Your task to perform on an android device: find which apps use the phone's location Image 0: 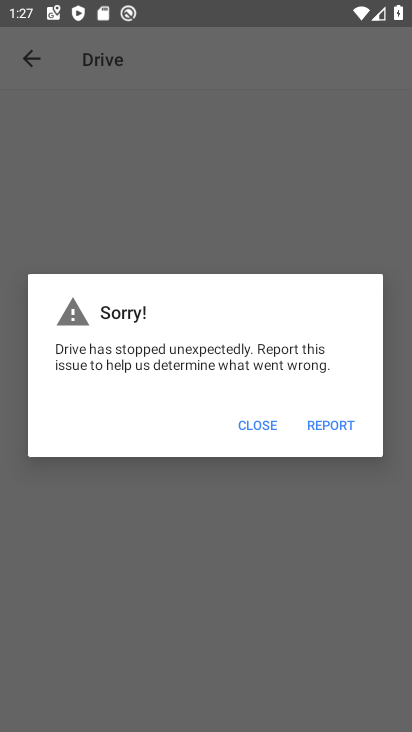
Step 0: press home button
Your task to perform on an android device: find which apps use the phone's location Image 1: 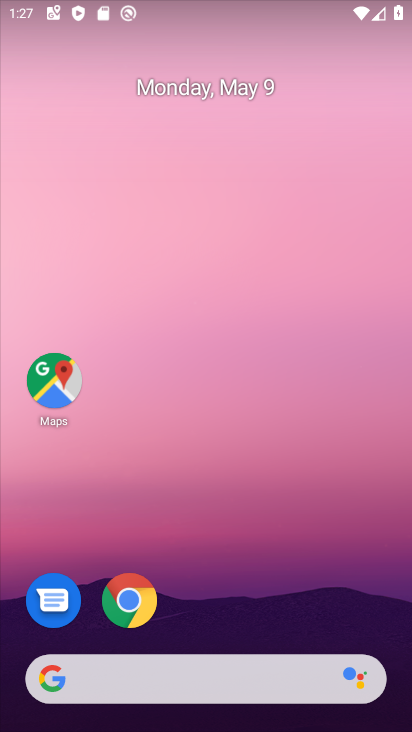
Step 1: drag from (231, 615) to (410, 28)
Your task to perform on an android device: find which apps use the phone's location Image 2: 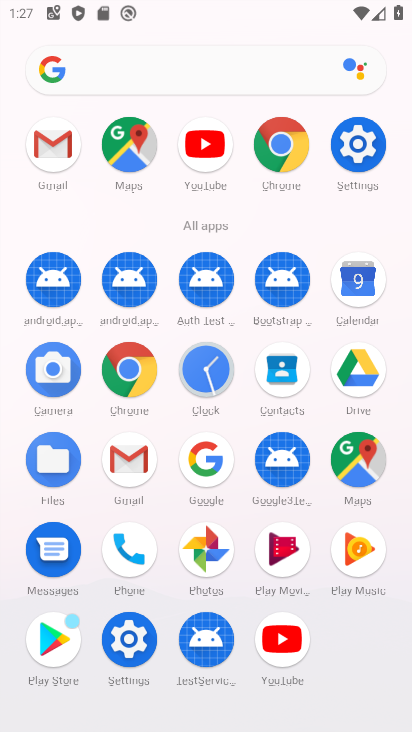
Step 2: click (345, 161)
Your task to perform on an android device: find which apps use the phone's location Image 3: 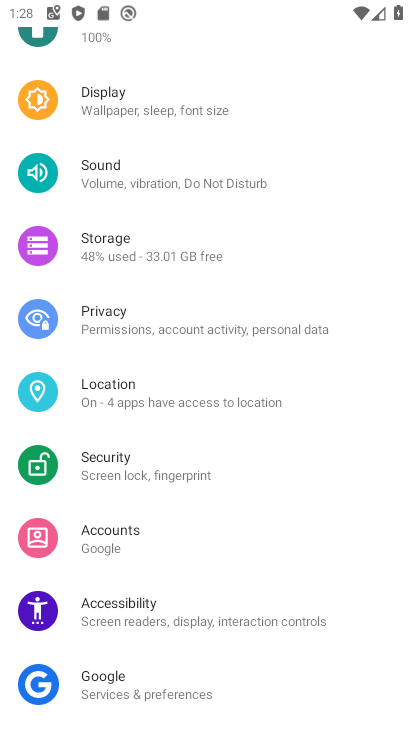
Step 3: click (206, 418)
Your task to perform on an android device: find which apps use the phone's location Image 4: 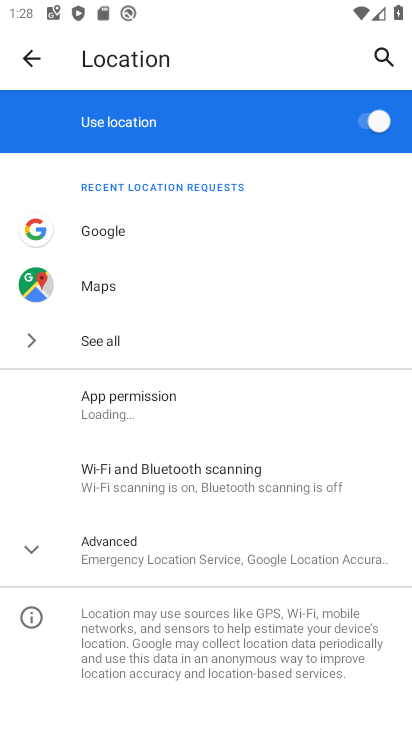
Step 4: click (99, 326)
Your task to perform on an android device: find which apps use the phone's location Image 5: 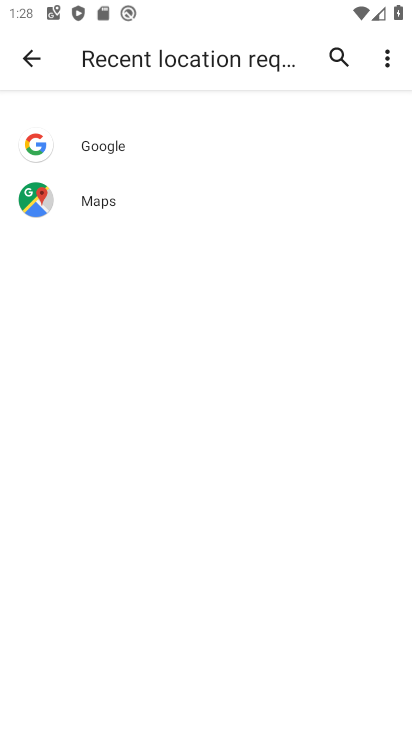
Step 5: task complete